Your task to perform on an android device: Go to CNN.com Image 0: 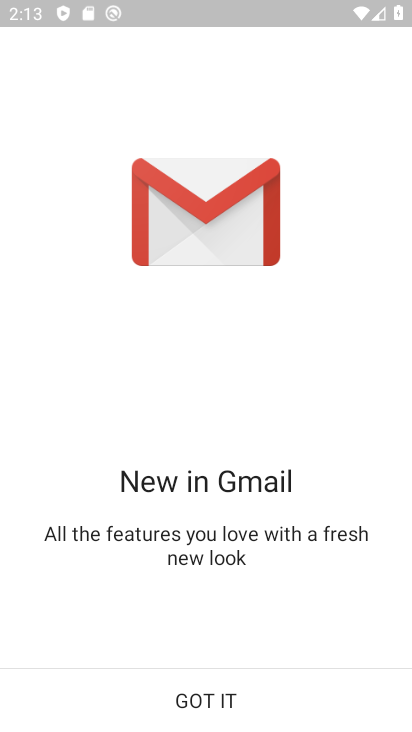
Step 0: press back button
Your task to perform on an android device: Go to CNN.com Image 1: 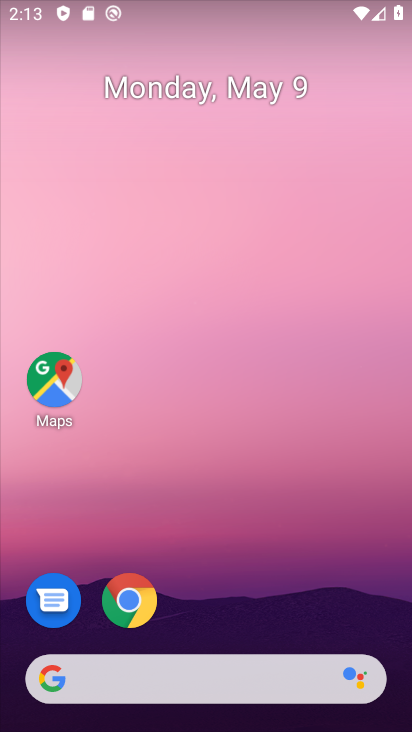
Step 1: click (122, 596)
Your task to perform on an android device: Go to CNN.com Image 2: 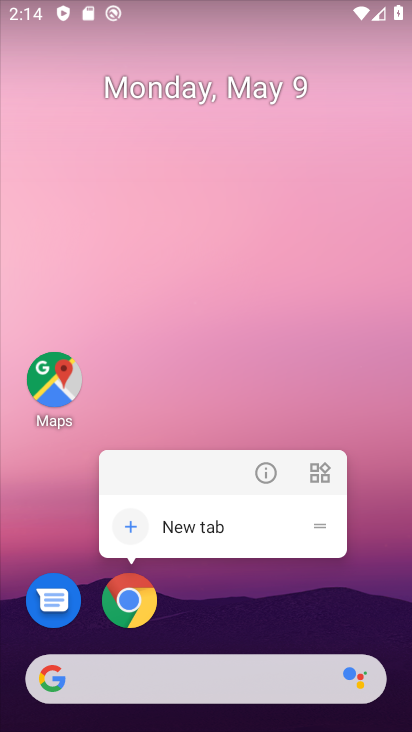
Step 2: click (124, 592)
Your task to perform on an android device: Go to CNN.com Image 3: 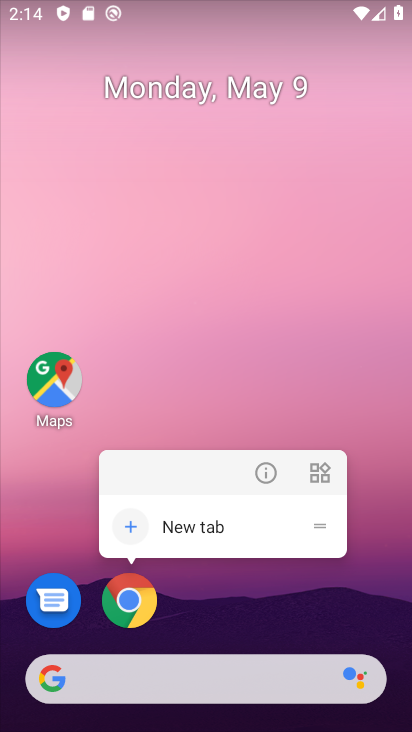
Step 3: click (116, 605)
Your task to perform on an android device: Go to CNN.com Image 4: 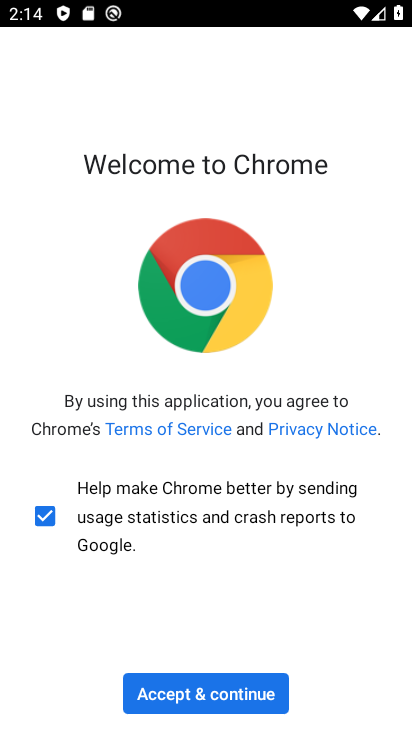
Step 4: click (205, 694)
Your task to perform on an android device: Go to CNN.com Image 5: 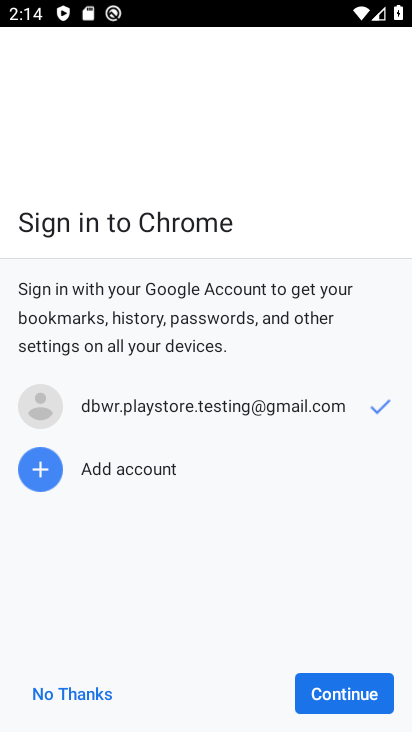
Step 5: click (325, 692)
Your task to perform on an android device: Go to CNN.com Image 6: 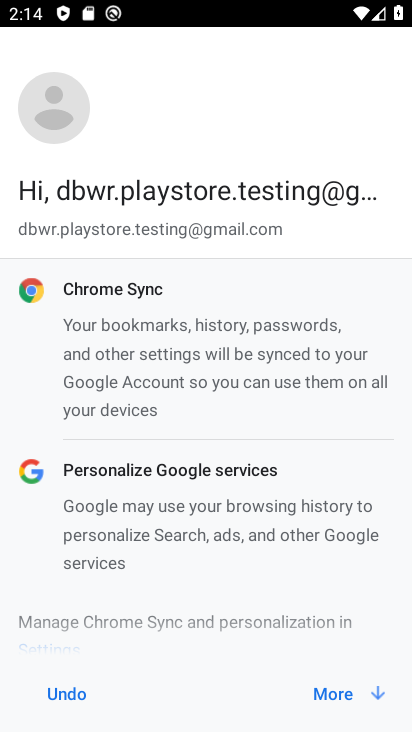
Step 6: click (349, 693)
Your task to perform on an android device: Go to CNN.com Image 7: 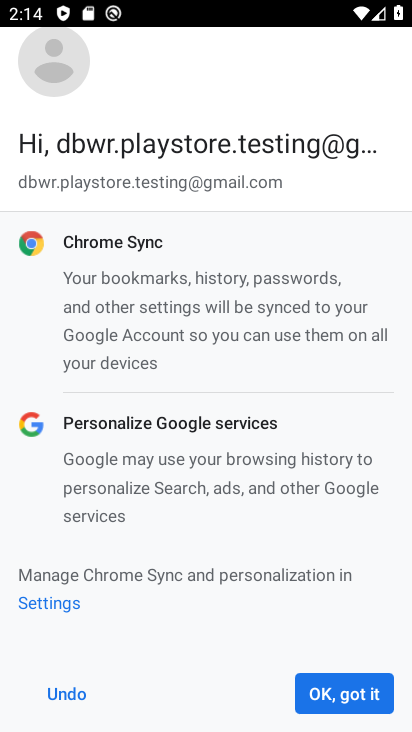
Step 7: click (352, 689)
Your task to perform on an android device: Go to CNN.com Image 8: 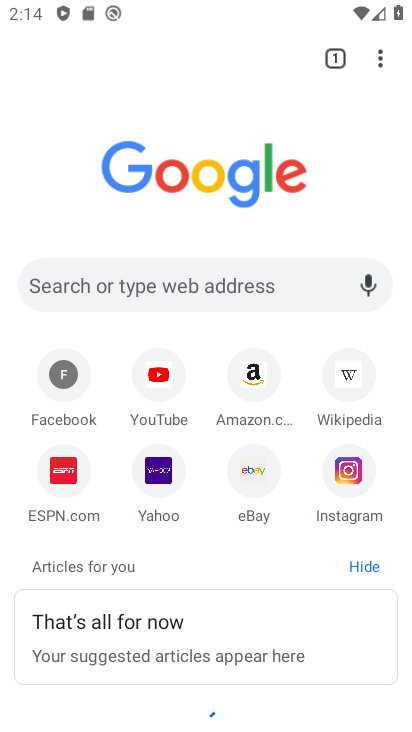
Step 8: click (340, 57)
Your task to perform on an android device: Go to CNN.com Image 9: 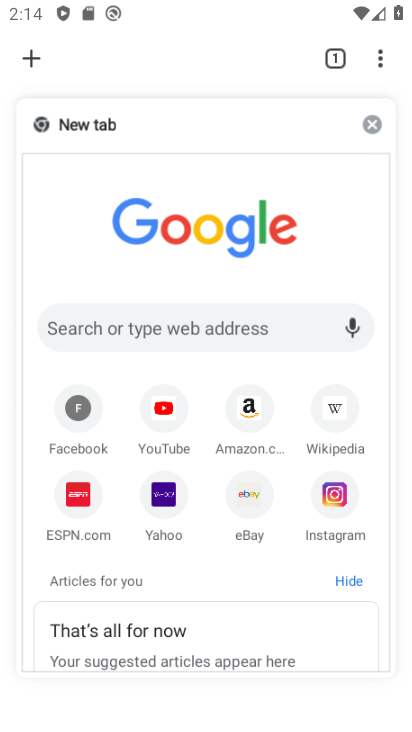
Step 9: click (45, 55)
Your task to perform on an android device: Go to CNN.com Image 10: 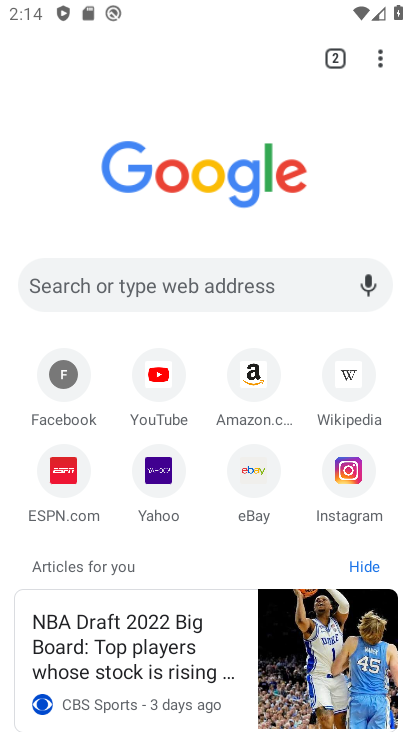
Step 10: click (173, 285)
Your task to perform on an android device: Go to CNN.com Image 11: 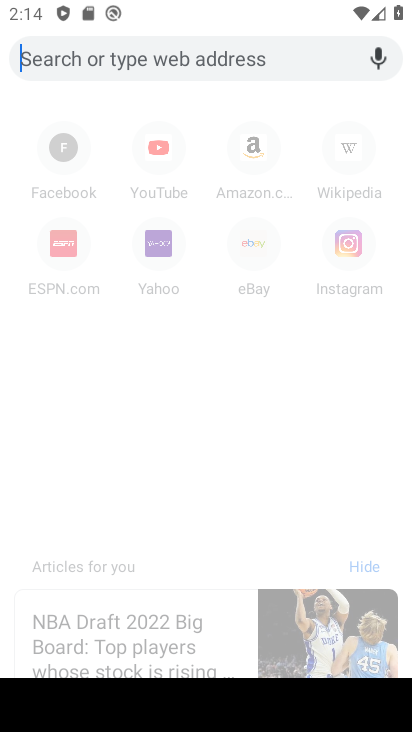
Step 11: type "cnn.com"
Your task to perform on an android device: Go to CNN.com Image 12: 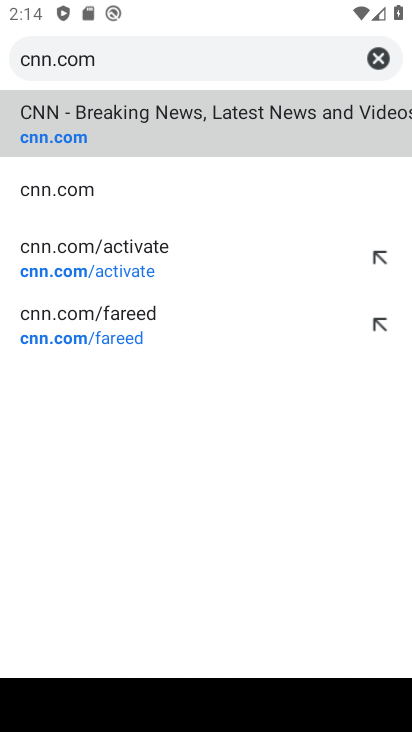
Step 12: click (140, 107)
Your task to perform on an android device: Go to CNN.com Image 13: 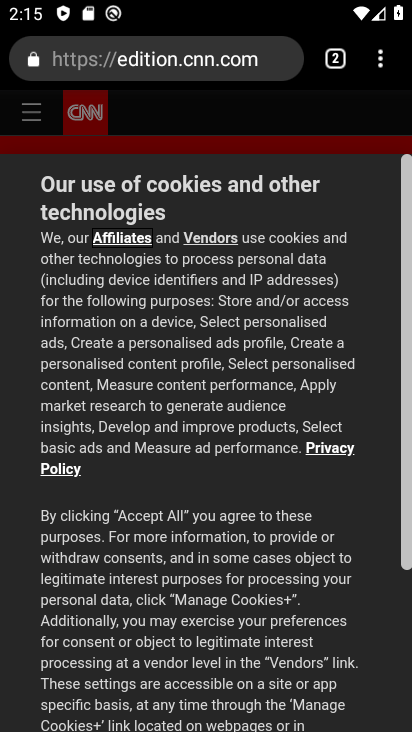
Step 13: task complete